Your task to perform on an android device: open wifi settings Image 0: 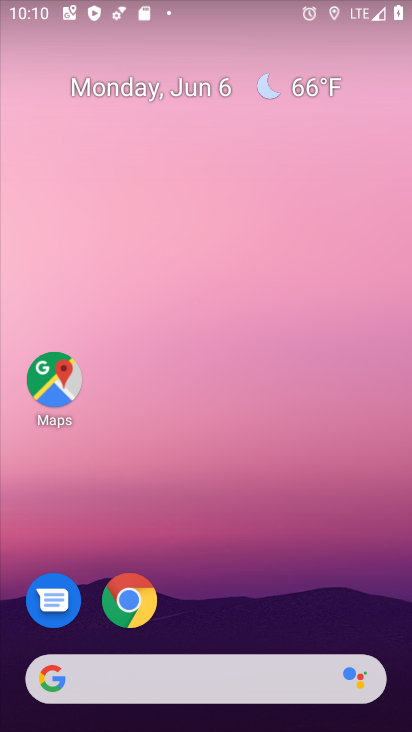
Step 0: drag from (295, 4) to (310, 463)
Your task to perform on an android device: open wifi settings Image 1: 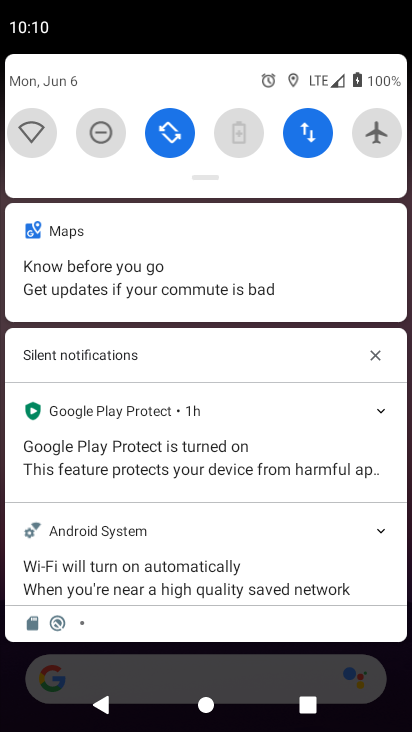
Step 1: click (32, 132)
Your task to perform on an android device: open wifi settings Image 2: 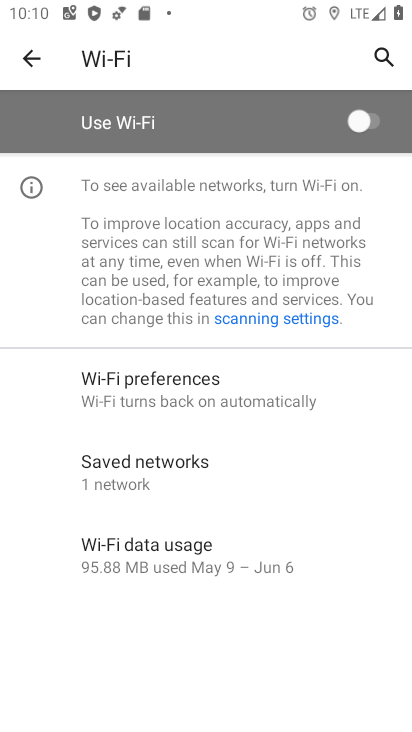
Step 2: click (349, 126)
Your task to perform on an android device: open wifi settings Image 3: 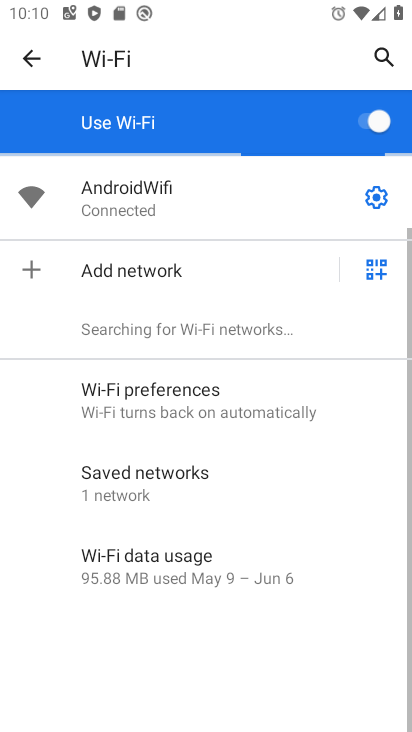
Step 3: click (379, 201)
Your task to perform on an android device: open wifi settings Image 4: 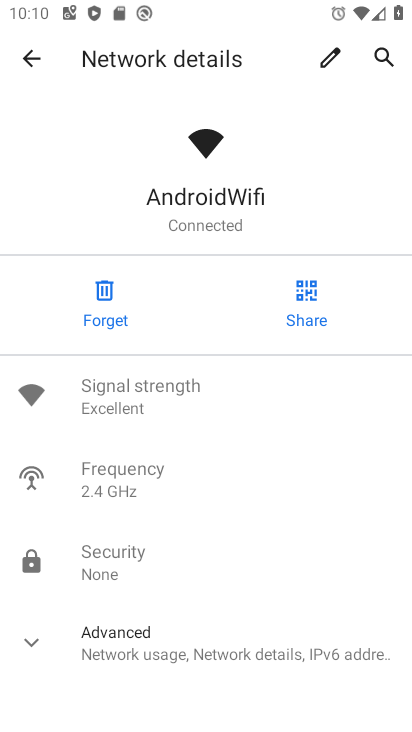
Step 4: task complete